Your task to perform on an android device: turn on javascript in the chrome app Image 0: 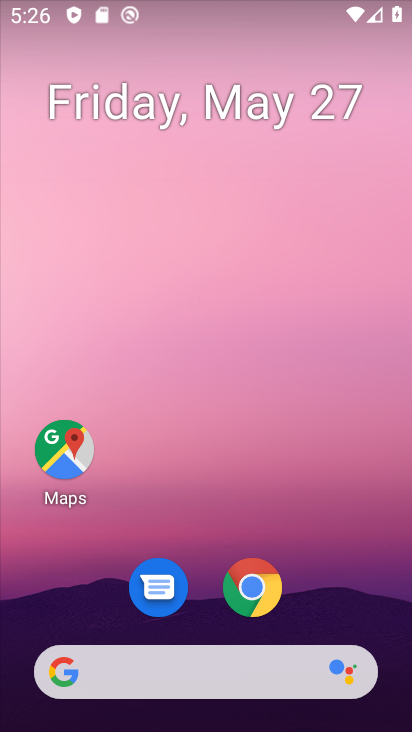
Step 0: click (265, 589)
Your task to perform on an android device: turn on javascript in the chrome app Image 1: 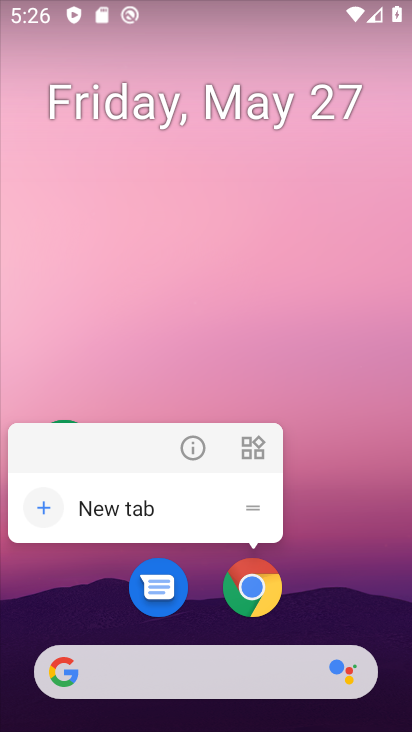
Step 1: click (313, 560)
Your task to perform on an android device: turn on javascript in the chrome app Image 2: 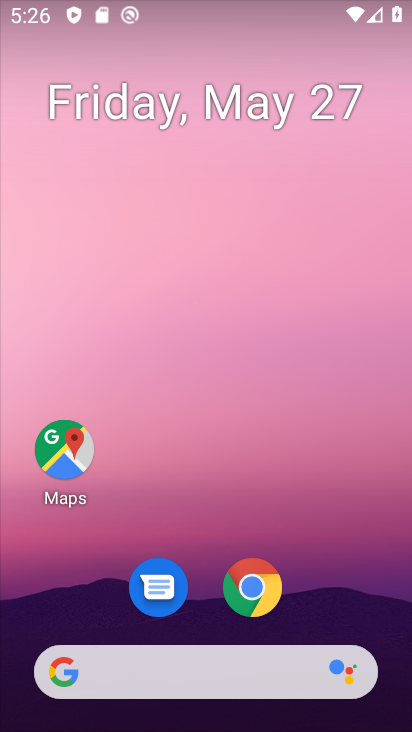
Step 2: drag from (313, 560) to (411, 102)
Your task to perform on an android device: turn on javascript in the chrome app Image 3: 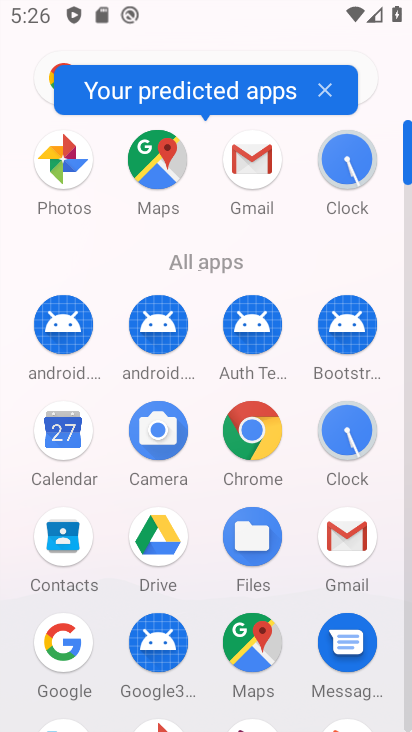
Step 3: click (238, 429)
Your task to perform on an android device: turn on javascript in the chrome app Image 4: 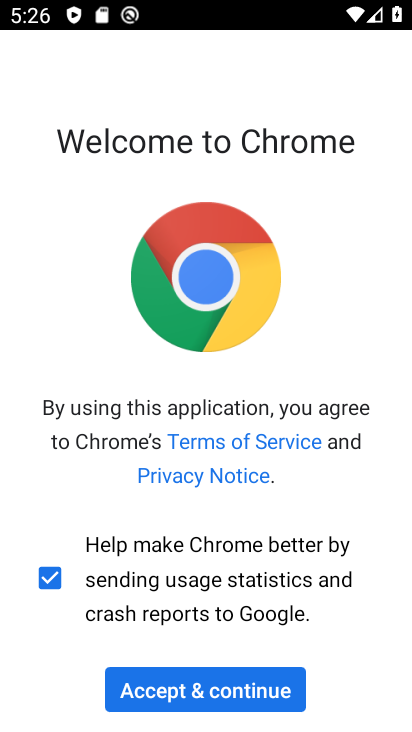
Step 4: click (176, 701)
Your task to perform on an android device: turn on javascript in the chrome app Image 5: 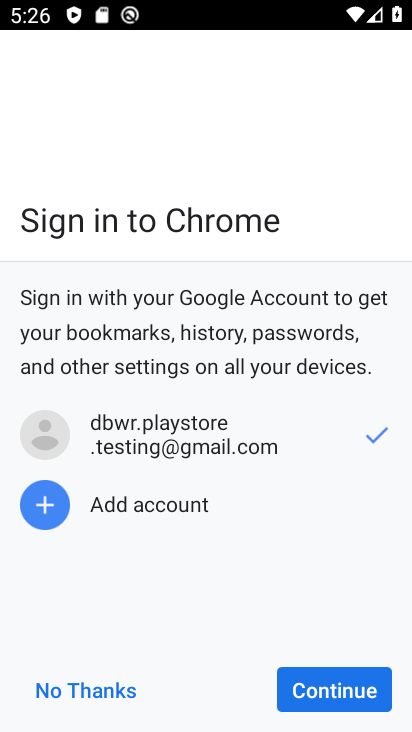
Step 5: click (319, 682)
Your task to perform on an android device: turn on javascript in the chrome app Image 6: 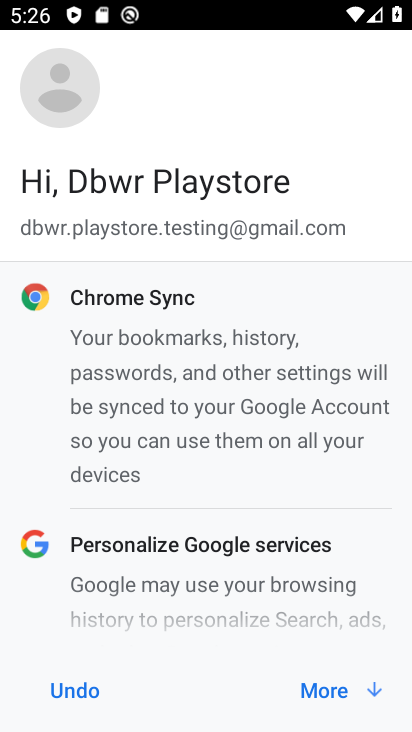
Step 6: click (318, 673)
Your task to perform on an android device: turn on javascript in the chrome app Image 7: 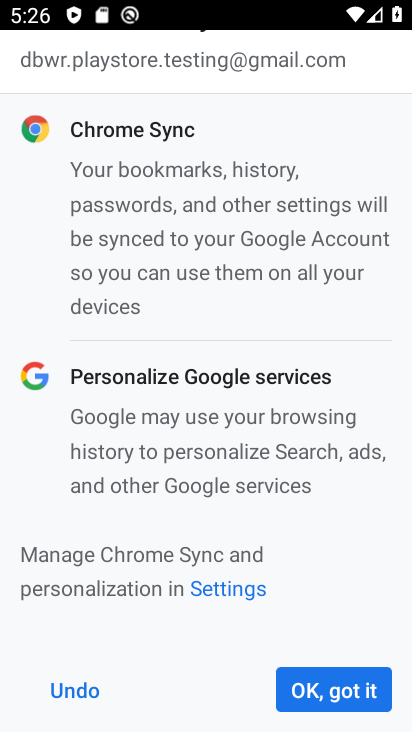
Step 7: click (318, 673)
Your task to perform on an android device: turn on javascript in the chrome app Image 8: 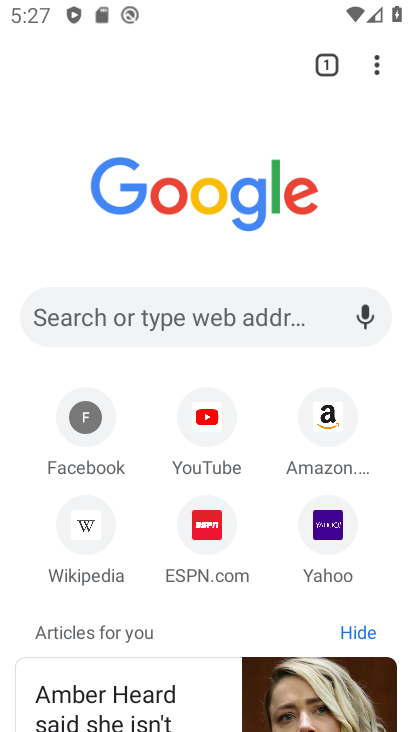
Step 8: drag from (379, 74) to (190, 540)
Your task to perform on an android device: turn on javascript in the chrome app Image 9: 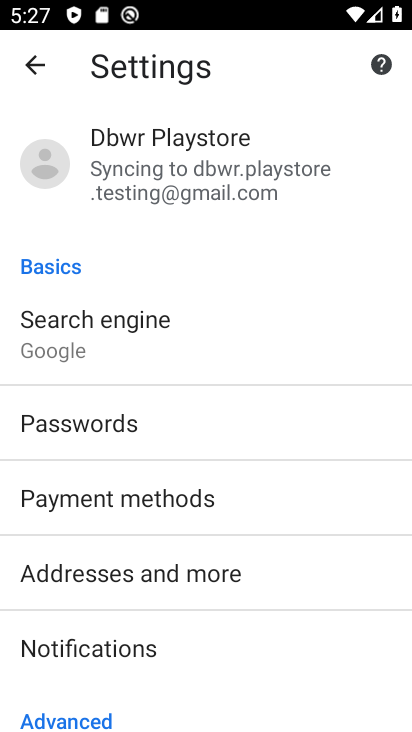
Step 9: drag from (210, 682) to (281, 273)
Your task to perform on an android device: turn on javascript in the chrome app Image 10: 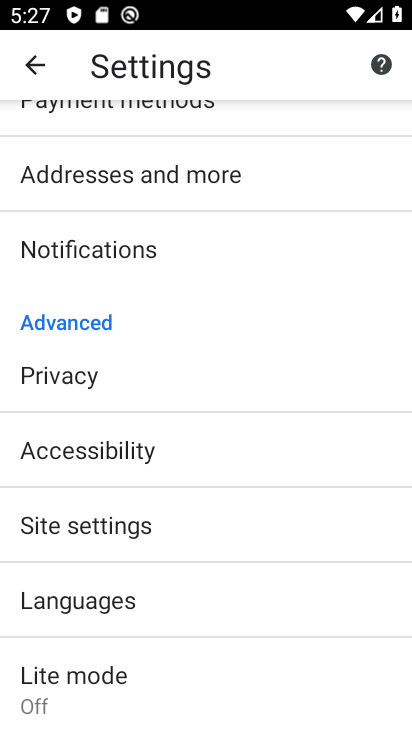
Step 10: click (91, 510)
Your task to perform on an android device: turn on javascript in the chrome app Image 11: 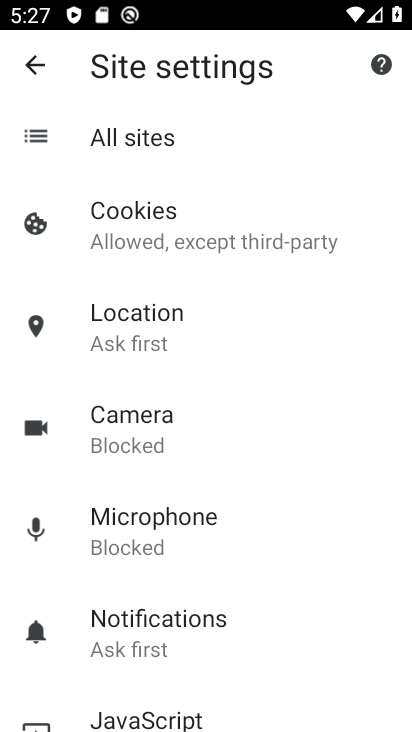
Step 11: drag from (291, 620) to (320, 238)
Your task to perform on an android device: turn on javascript in the chrome app Image 12: 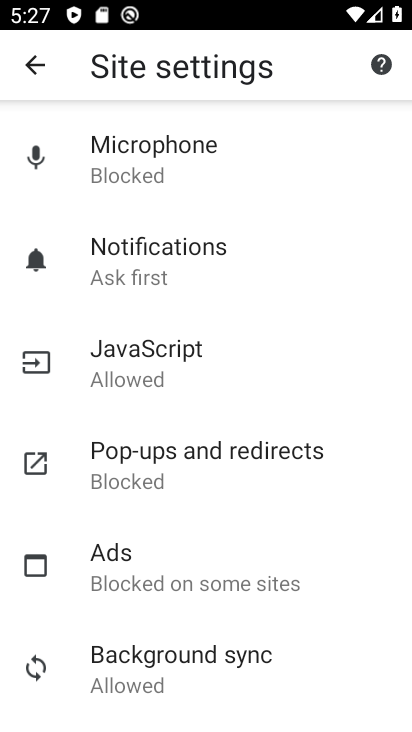
Step 12: click (174, 325)
Your task to perform on an android device: turn on javascript in the chrome app Image 13: 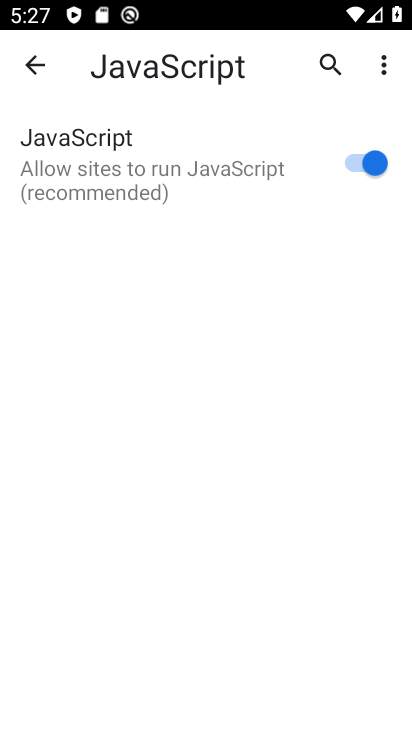
Step 13: task complete